Your task to perform on an android device: turn on wifi Image 0: 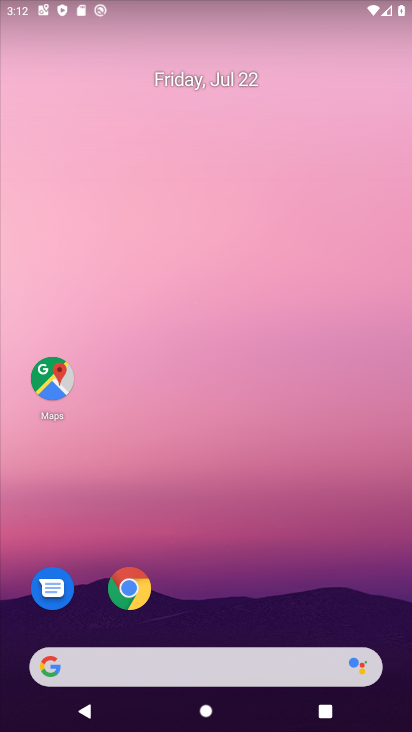
Step 0: drag from (169, 653) to (261, 295)
Your task to perform on an android device: turn on wifi Image 1: 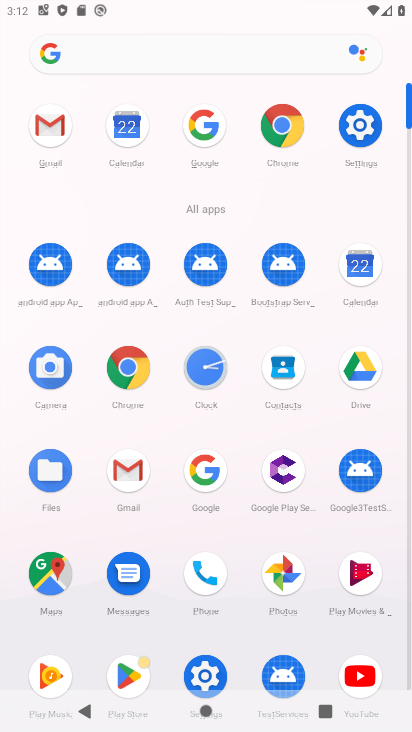
Step 1: click (370, 127)
Your task to perform on an android device: turn on wifi Image 2: 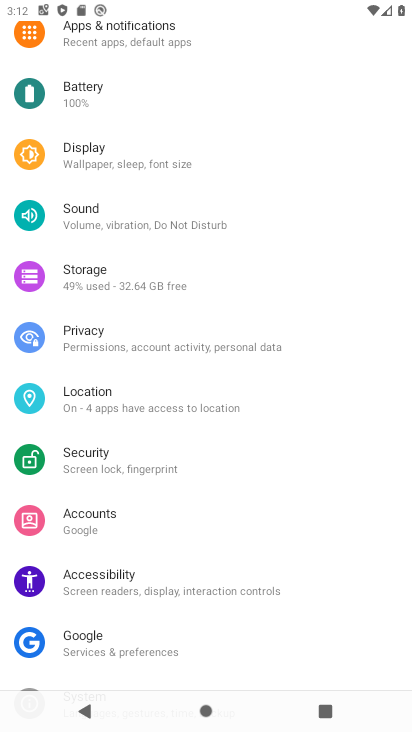
Step 2: drag from (160, 26) to (220, 373)
Your task to perform on an android device: turn on wifi Image 3: 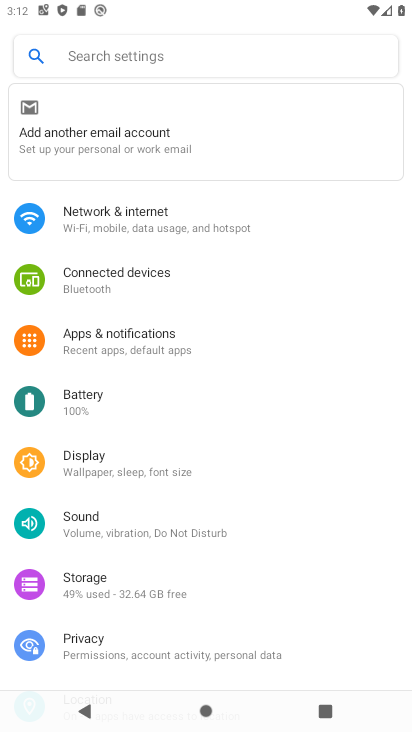
Step 3: drag from (82, 139) to (146, 472)
Your task to perform on an android device: turn on wifi Image 4: 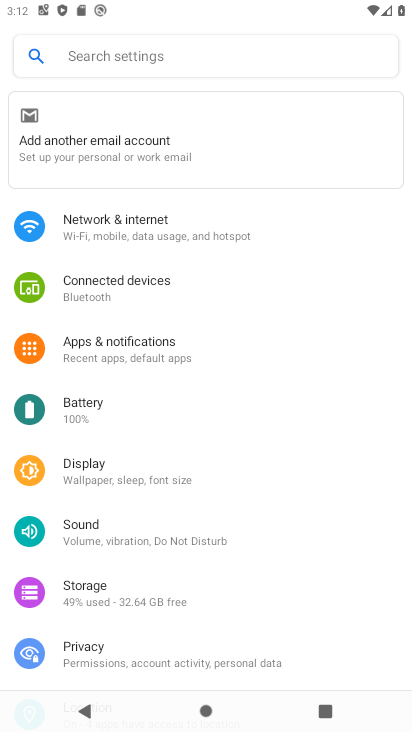
Step 4: click (129, 226)
Your task to perform on an android device: turn on wifi Image 5: 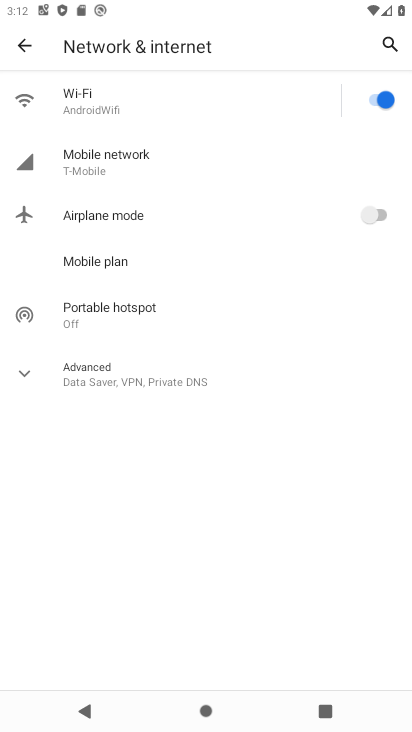
Step 5: task complete